Your task to perform on an android device: turn on priority inbox in the gmail app Image 0: 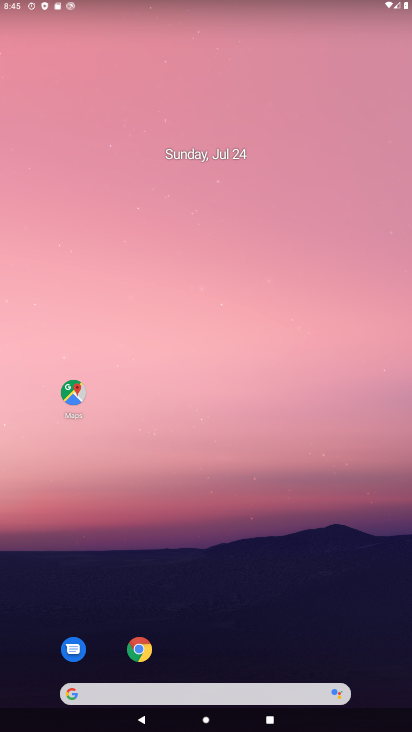
Step 0: drag from (68, 663) to (188, 286)
Your task to perform on an android device: turn on priority inbox in the gmail app Image 1: 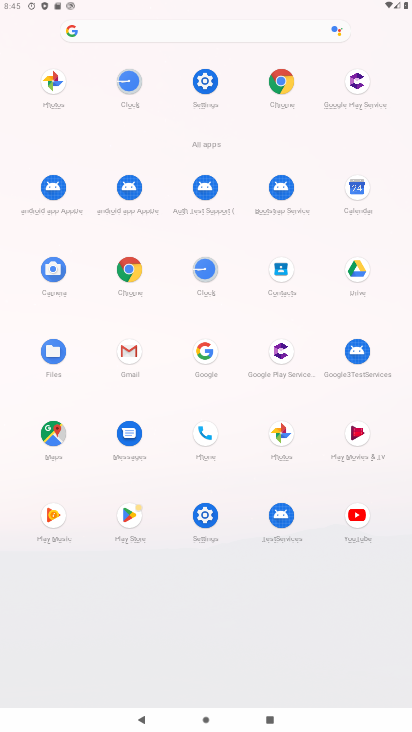
Step 1: click (146, 358)
Your task to perform on an android device: turn on priority inbox in the gmail app Image 2: 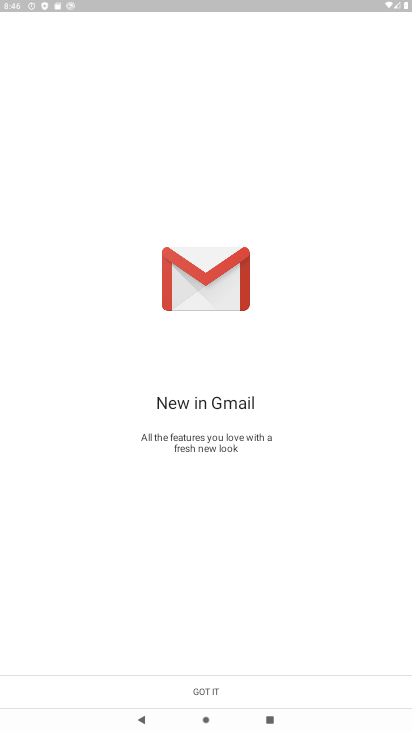
Step 2: click (203, 685)
Your task to perform on an android device: turn on priority inbox in the gmail app Image 3: 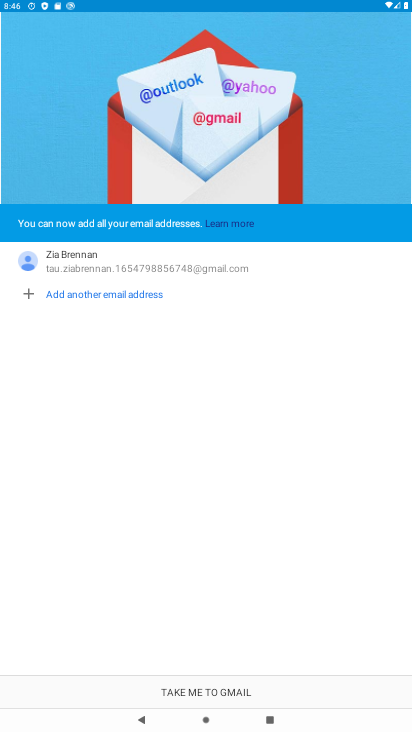
Step 3: click (208, 685)
Your task to perform on an android device: turn on priority inbox in the gmail app Image 4: 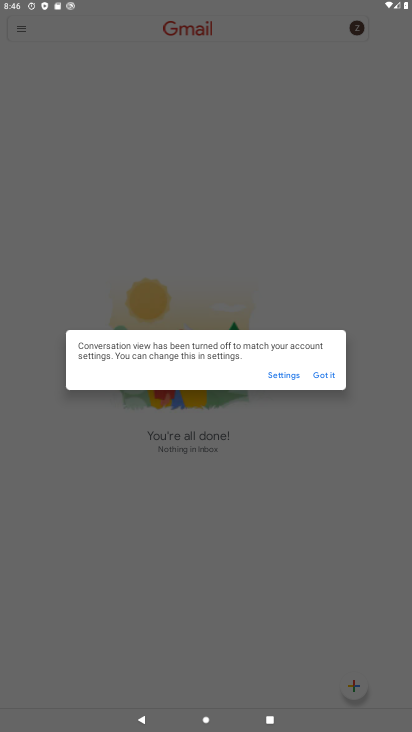
Step 4: click (336, 376)
Your task to perform on an android device: turn on priority inbox in the gmail app Image 5: 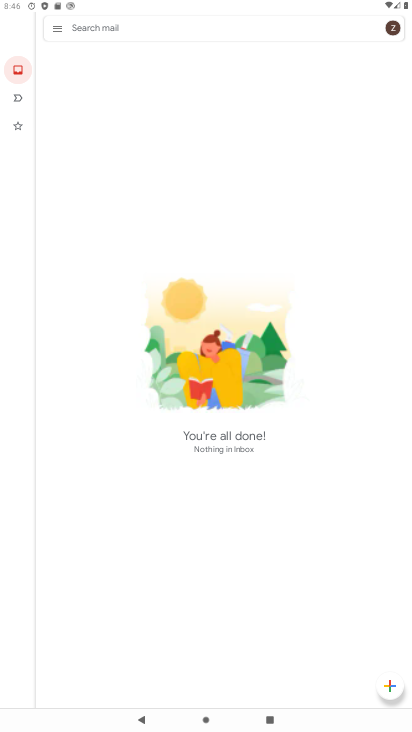
Step 5: click (57, 34)
Your task to perform on an android device: turn on priority inbox in the gmail app Image 6: 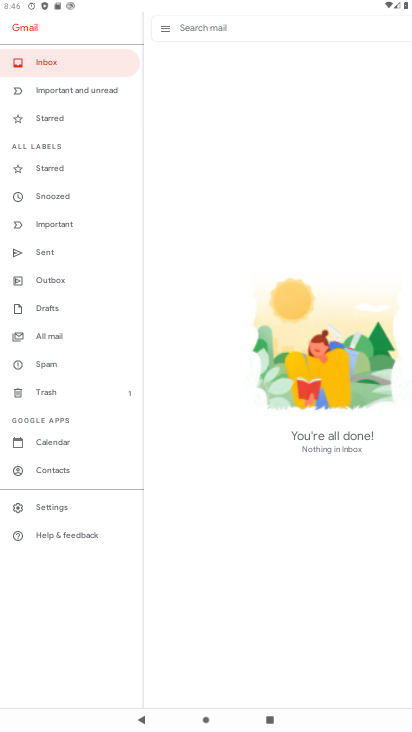
Step 6: click (65, 508)
Your task to perform on an android device: turn on priority inbox in the gmail app Image 7: 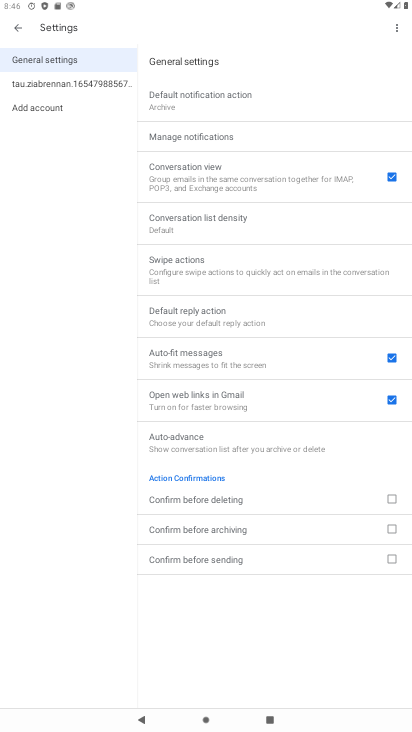
Step 7: click (56, 84)
Your task to perform on an android device: turn on priority inbox in the gmail app Image 8: 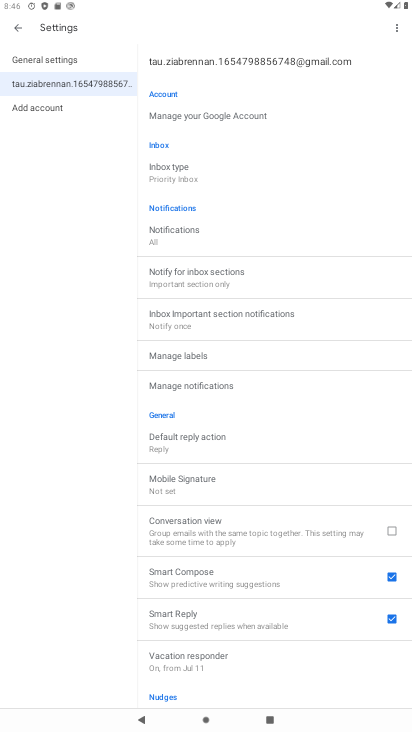
Step 8: task complete